Your task to perform on an android device: Go to wifi settings Image 0: 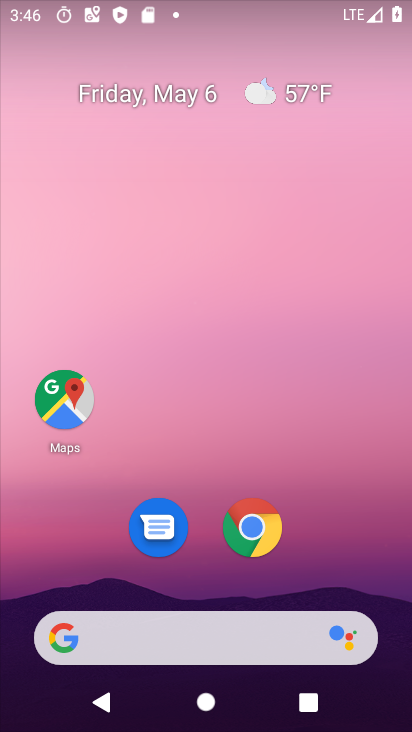
Step 0: click (274, 538)
Your task to perform on an android device: Go to wifi settings Image 1: 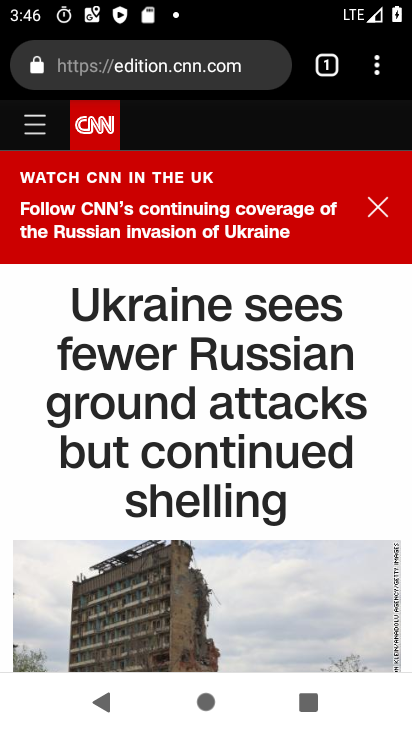
Step 1: press home button
Your task to perform on an android device: Go to wifi settings Image 2: 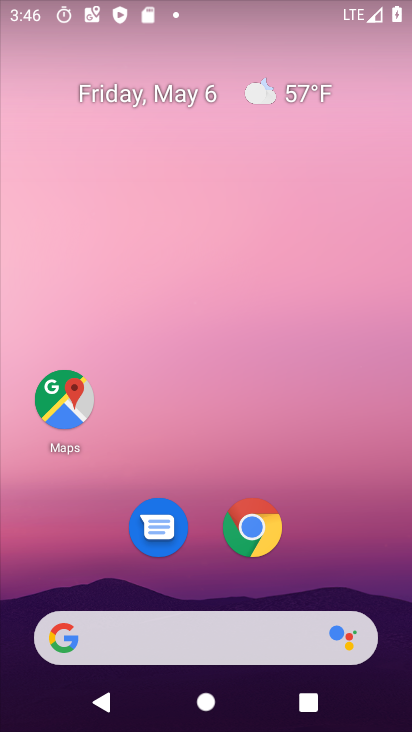
Step 2: drag from (293, 565) to (268, 139)
Your task to perform on an android device: Go to wifi settings Image 3: 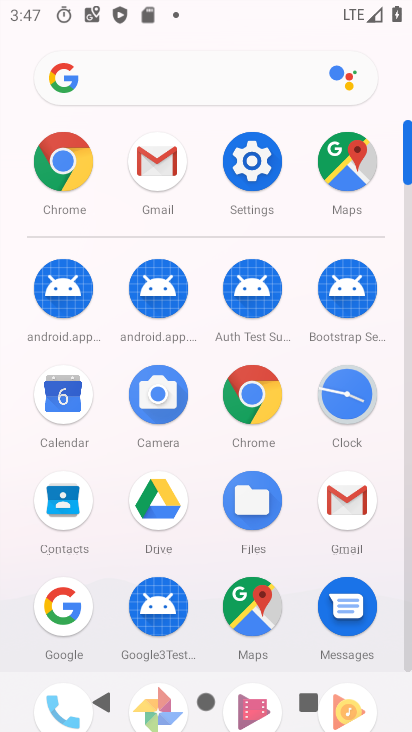
Step 3: click (256, 154)
Your task to perform on an android device: Go to wifi settings Image 4: 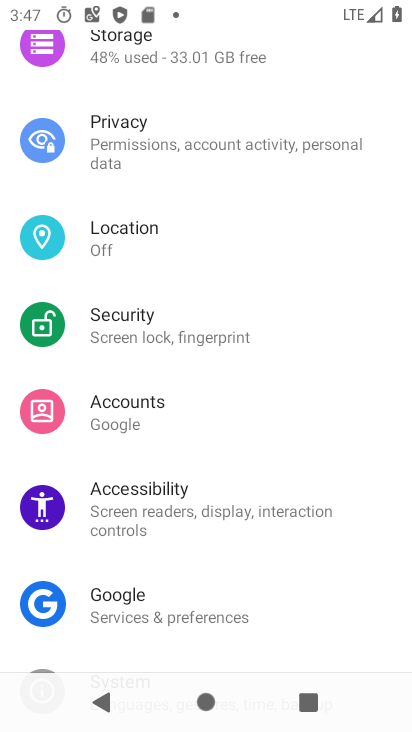
Step 4: drag from (244, 159) to (197, 533)
Your task to perform on an android device: Go to wifi settings Image 5: 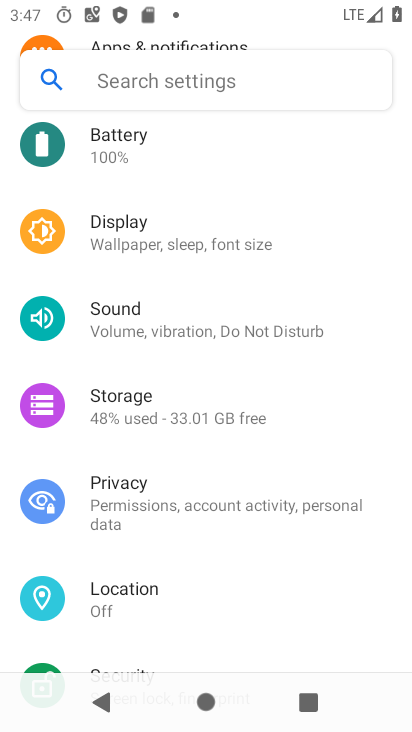
Step 5: drag from (206, 289) to (153, 559)
Your task to perform on an android device: Go to wifi settings Image 6: 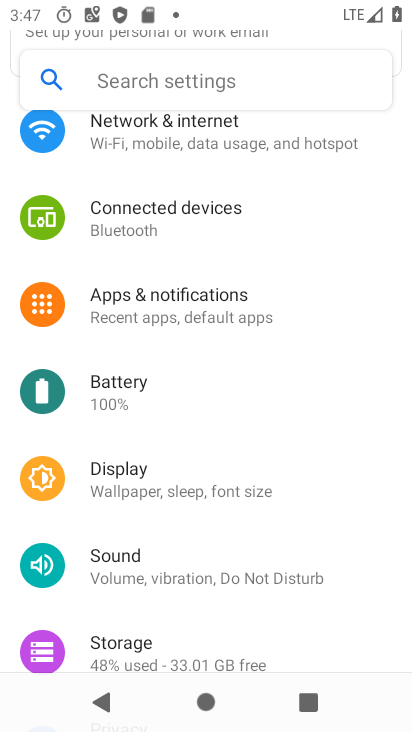
Step 6: click (153, 150)
Your task to perform on an android device: Go to wifi settings Image 7: 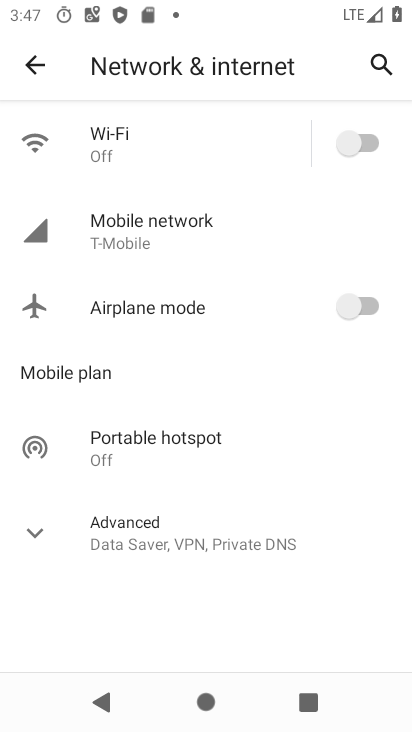
Step 7: click (205, 128)
Your task to perform on an android device: Go to wifi settings Image 8: 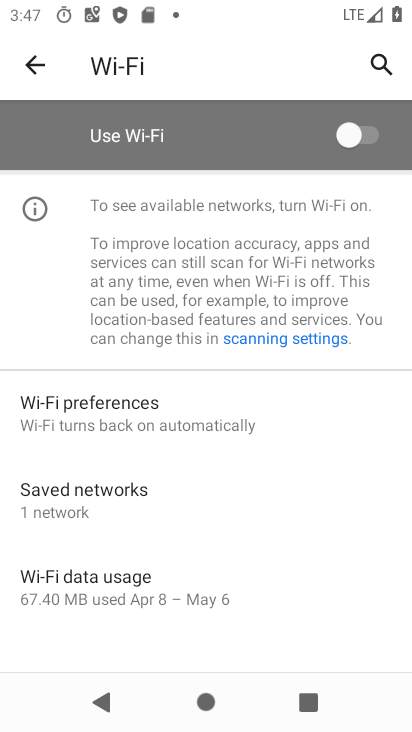
Step 8: task complete